Your task to perform on an android device: see tabs open on other devices in the chrome app Image 0: 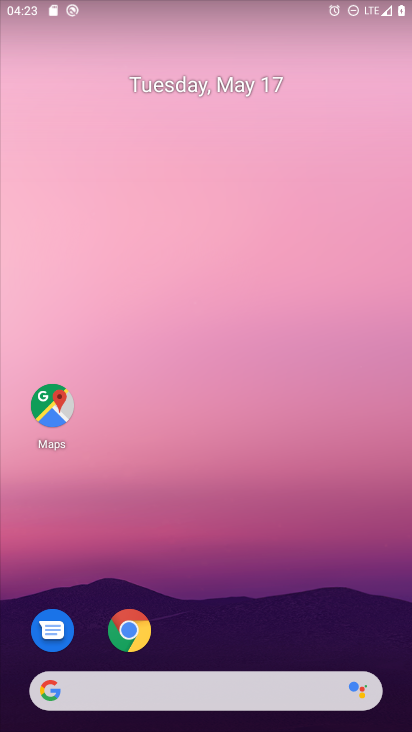
Step 0: click (140, 626)
Your task to perform on an android device: see tabs open on other devices in the chrome app Image 1: 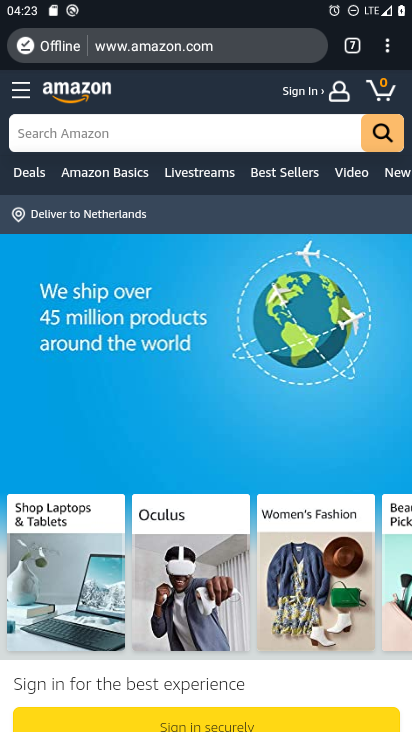
Step 1: task complete